Your task to perform on an android device: Search for pizza restaurants on Maps Image 0: 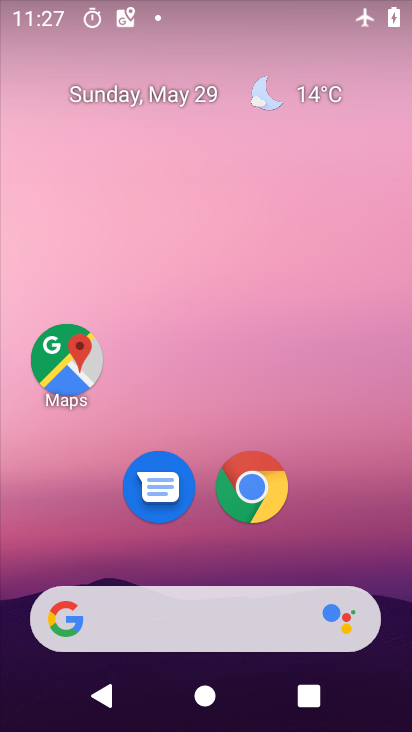
Step 0: click (70, 362)
Your task to perform on an android device: Search for pizza restaurants on Maps Image 1: 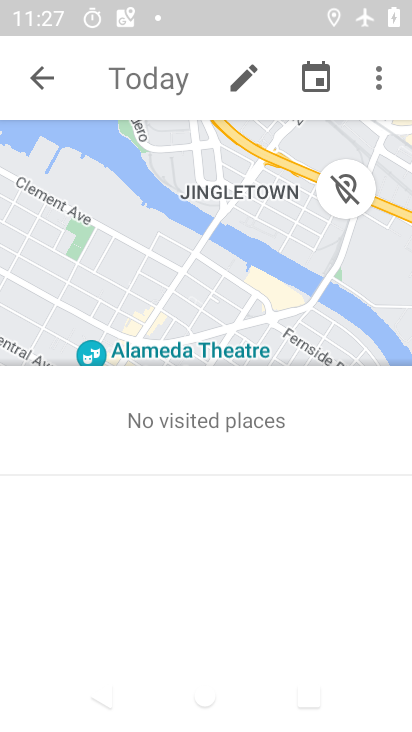
Step 1: click (30, 78)
Your task to perform on an android device: Search for pizza restaurants on Maps Image 2: 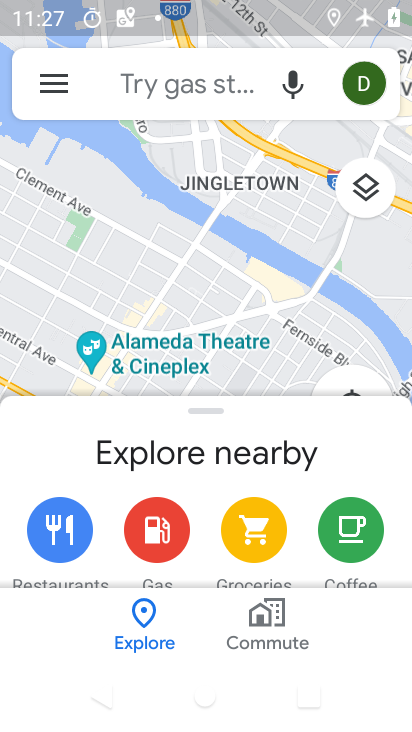
Step 2: click (141, 81)
Your task to perform on an android device: Search for pizza restaurants on Maps Image 3: 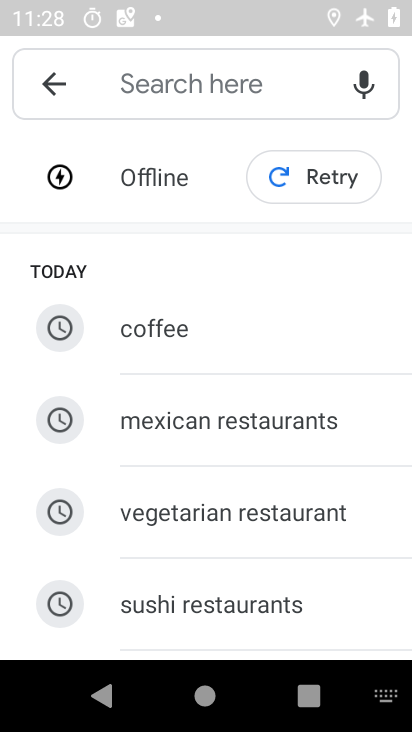
Step 3: type "pizza restaurants "
Your task to perform on an android device: Search for pizza restaurants on Maps Image 4: 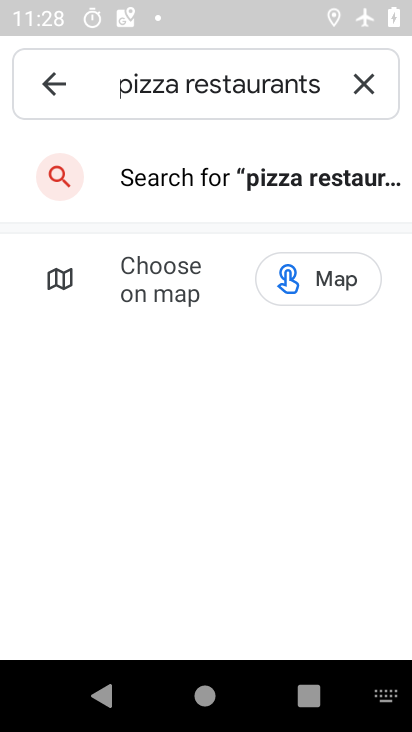
Step 4: click (235, 178)
Your task to perform on an android device: Search for pizza restaurants on Maps Image 5: 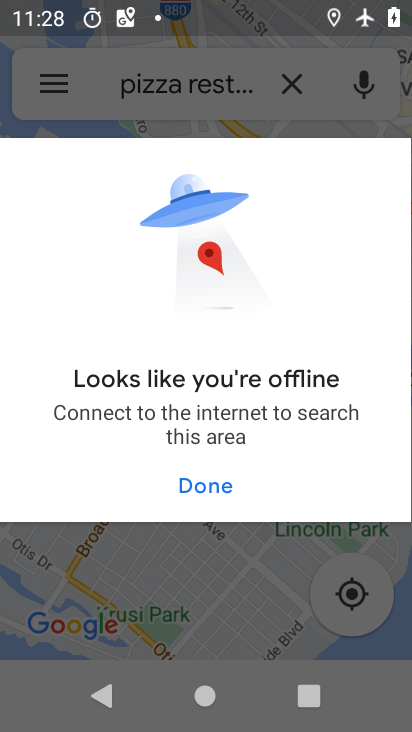
Step 5: task complete